Your task to perform on an android device: change text size in settings app Image 0: 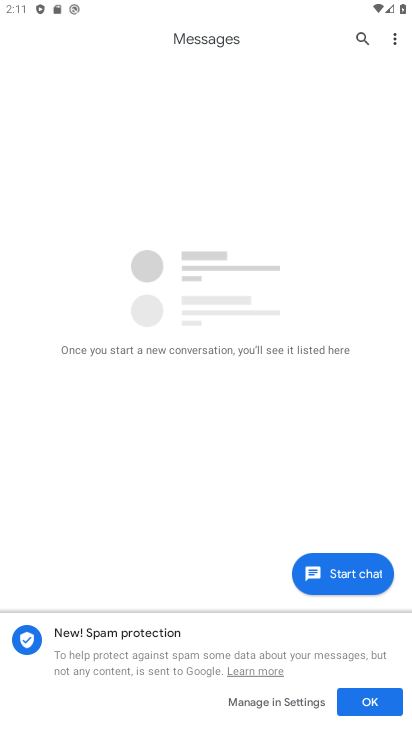
Step 0: press home button
Your task to perform on an android device: change text size in settings app Image 1: 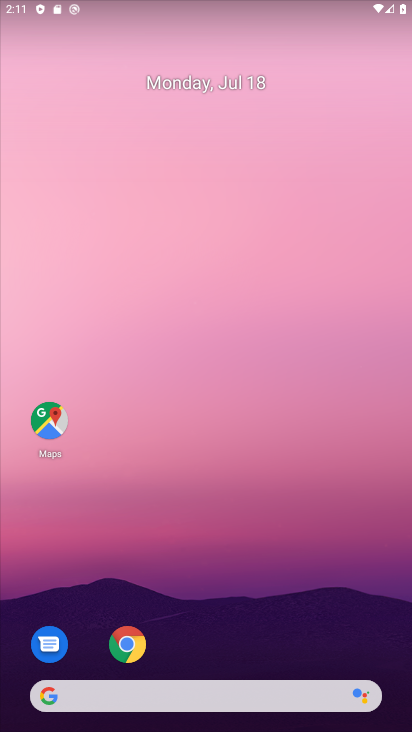
Step 1: drag from (258, 634) to (171, 125)
Your task to perform on an android device: change text size in settings app Image 2: 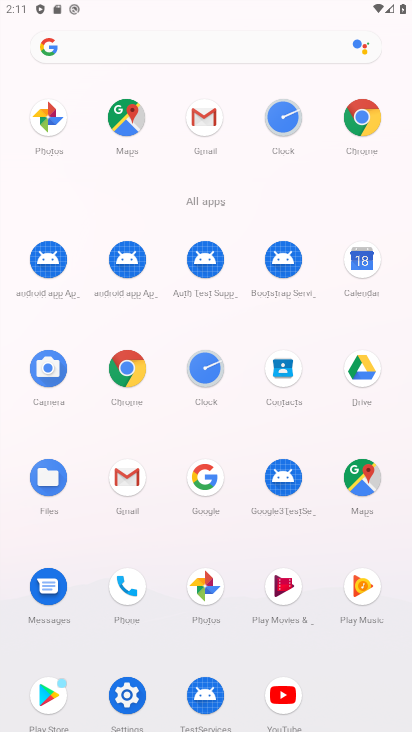
Step 2: click (126, 704)
Your task to perform on an android device: change text size in settings app Image 3: 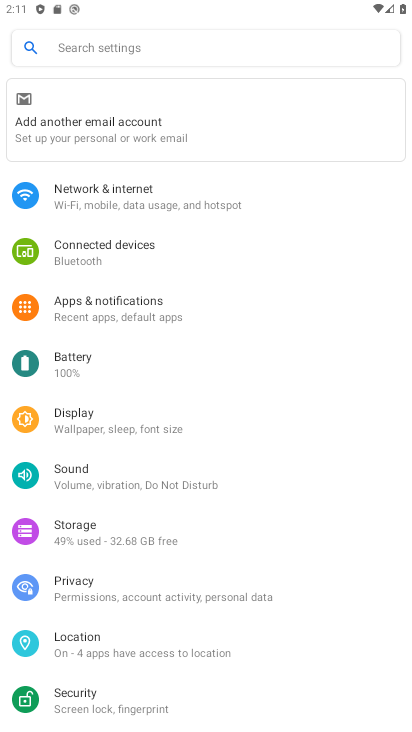
Step 3: click (181, 413)
Your task to perform on an android device: change text size in settings app Image 4: 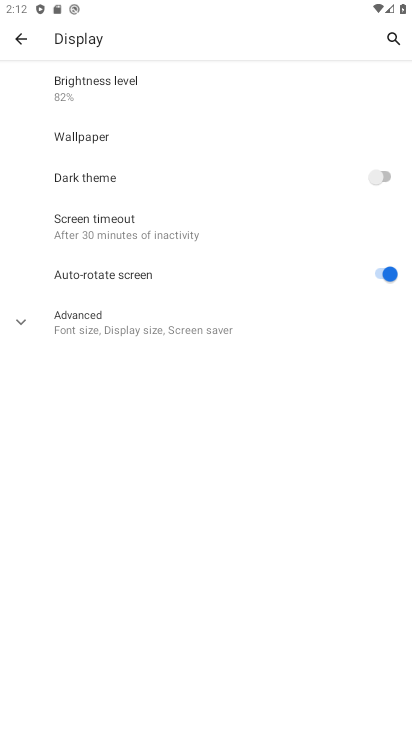
Step 4: click (178, 332)
Your task to perform on an android device: change text size in settings app Image 5: 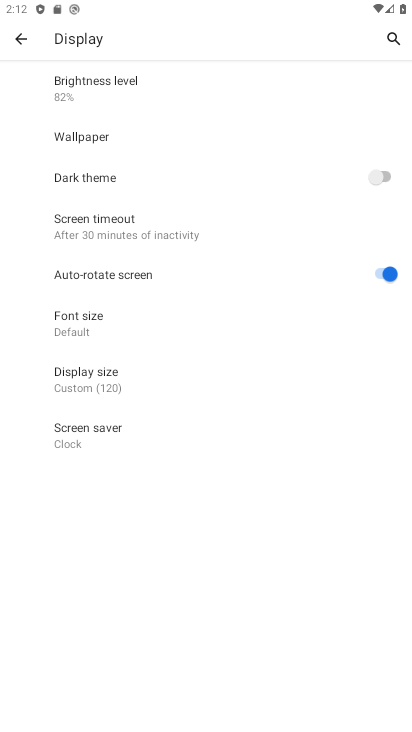
Step 5: click (178, 330)
Your task to perform on an android device: change text size in settings app Image 6: 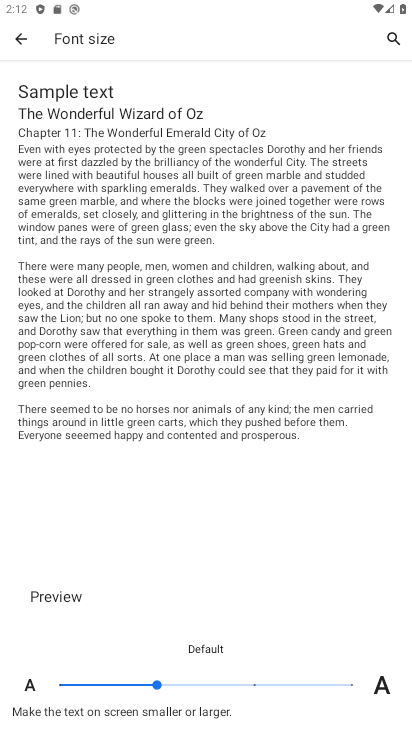
Step 6: click (252, 688)
Your task to perform on an android device: change text size in settings app Image 7: 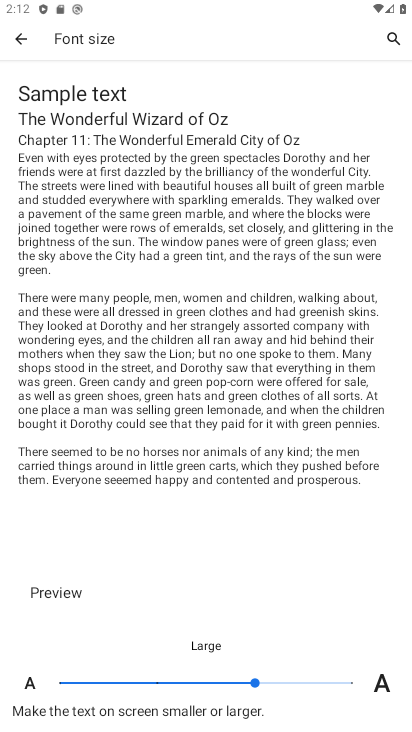
Step 7: task complete